Your task to perform on an android device: Open the calendar app, open the side menu, and click the "Day" option Image 0: 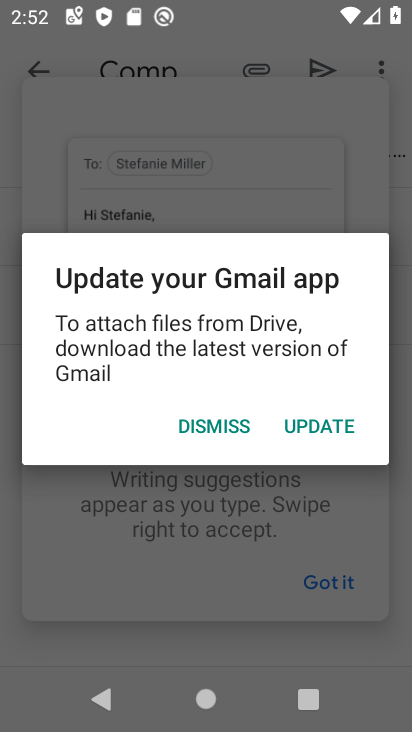
Step 0: press home button
Your task to perform on an android device: Open the calendar app, open the side menu, and click the "Day" option Image 1: 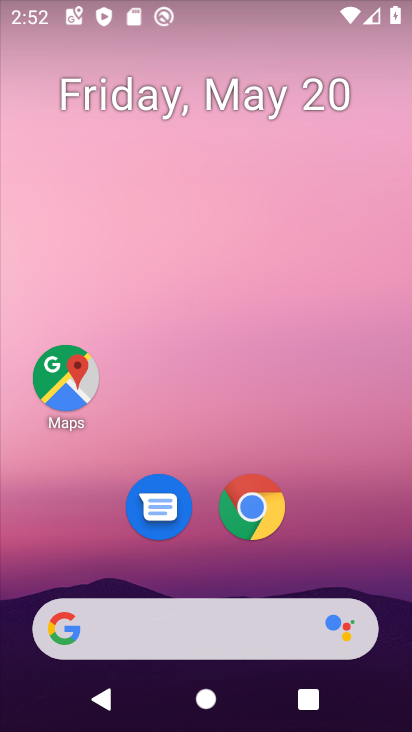
Step 1: drag from (232, 723) to (220, 135)
Your task to perform on an android device: Open the calendar app, open the side menu, and click the "Day" option Image 2: 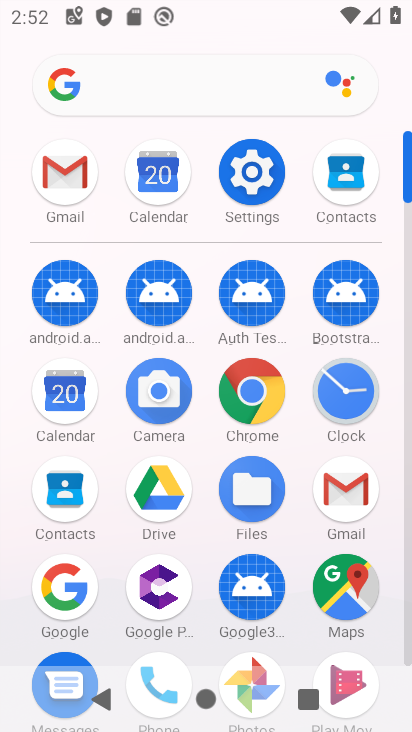
Step 2: click (61, 390)
Your task to perform on an android device: Open the calendar app, open the side menu, and click the "Day" option Image 3: 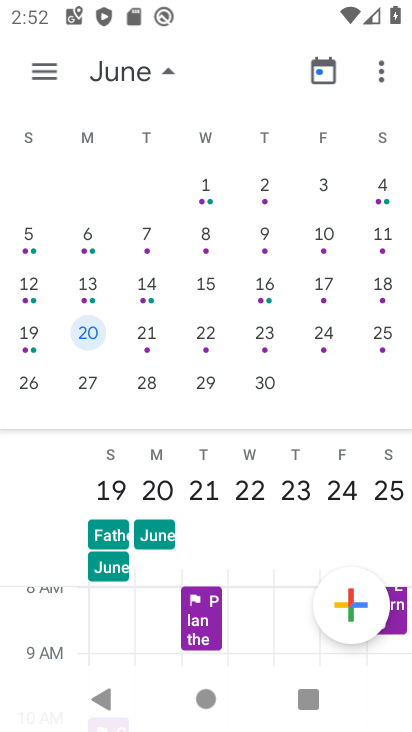
Step 3: click (46, 73)
Your task to perform on an android device: Open the calendar app, open the side menu, and click the "Day" option Image 4: 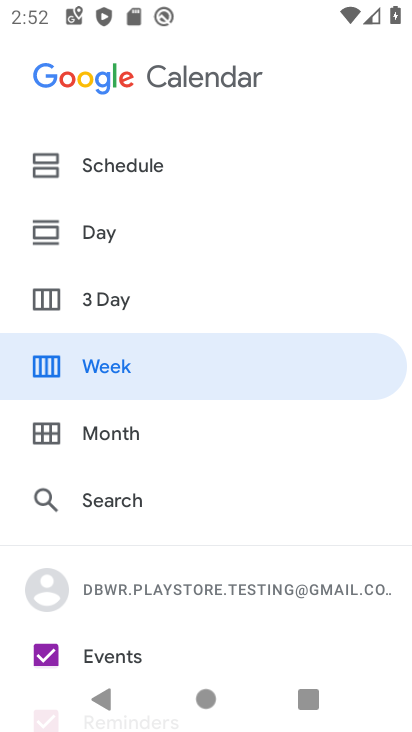
Step 4: click (100, 231)
Your task to perform on an android device: Open the calendar app, open the side menu, and click the "Day" option Image 5: 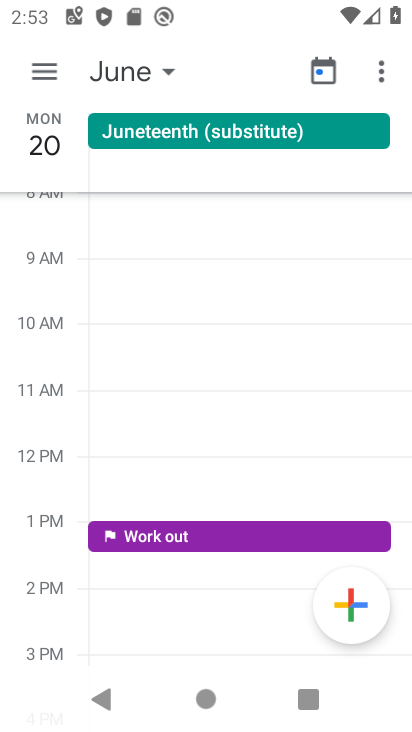
Step 5: task complete